Your task to perform on an android device: Open maps Image 0: 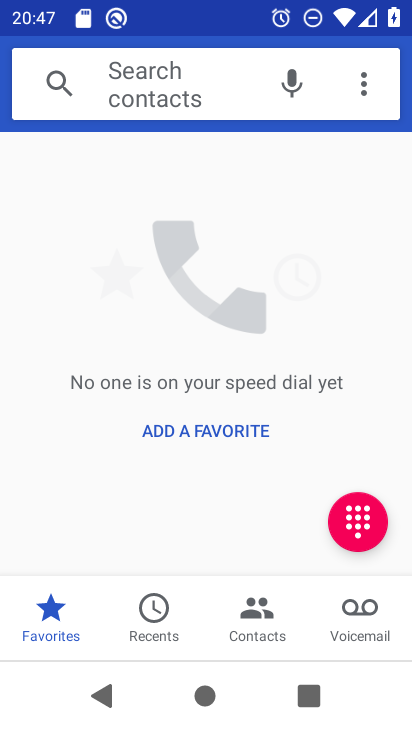
Step 0: press home button
Your task to perform on an android device: Open maps Image 1: 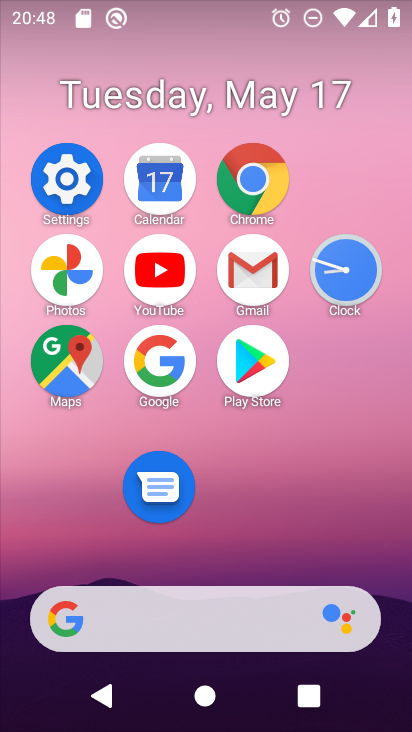
Step 1: click (65, 364)
Your task to perform on an android device: Open maps Image 2: 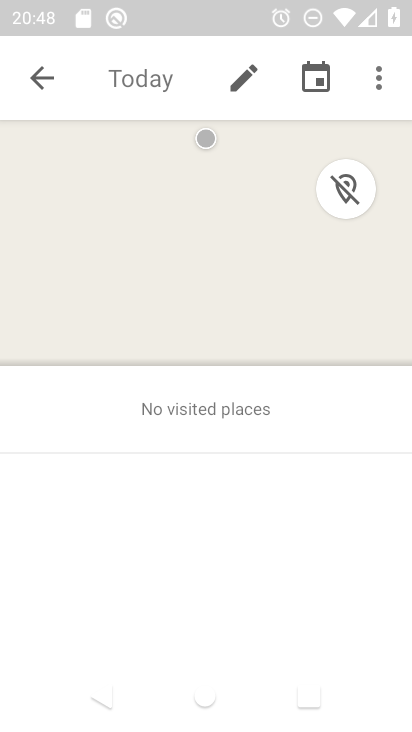
Step 2: task complete